Your task to perform on an android device: Open CNN.com Image 0: 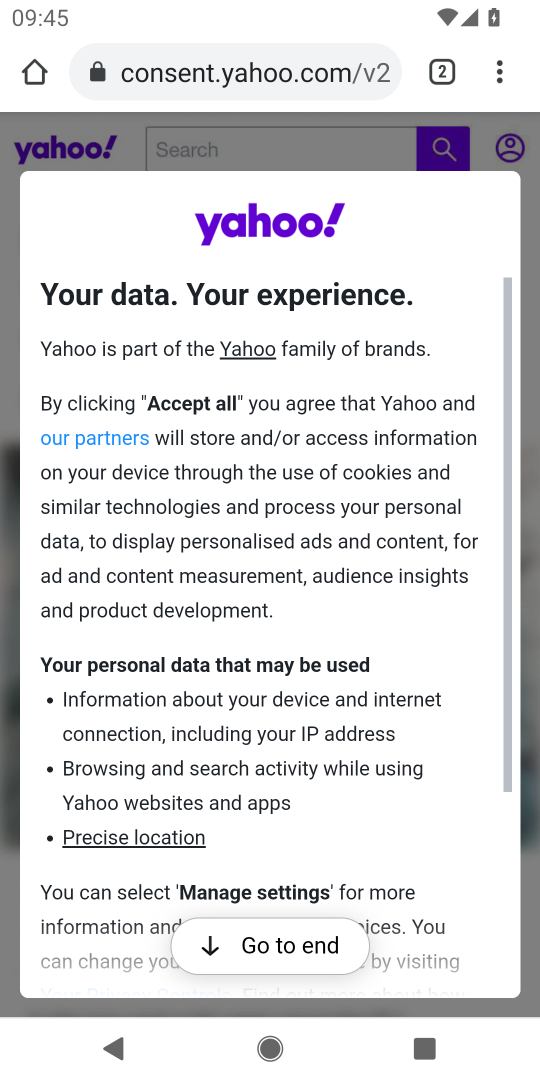
Step 0: click (304, 82)
Your task to perform on an android device: Open CNN.com Image 1: 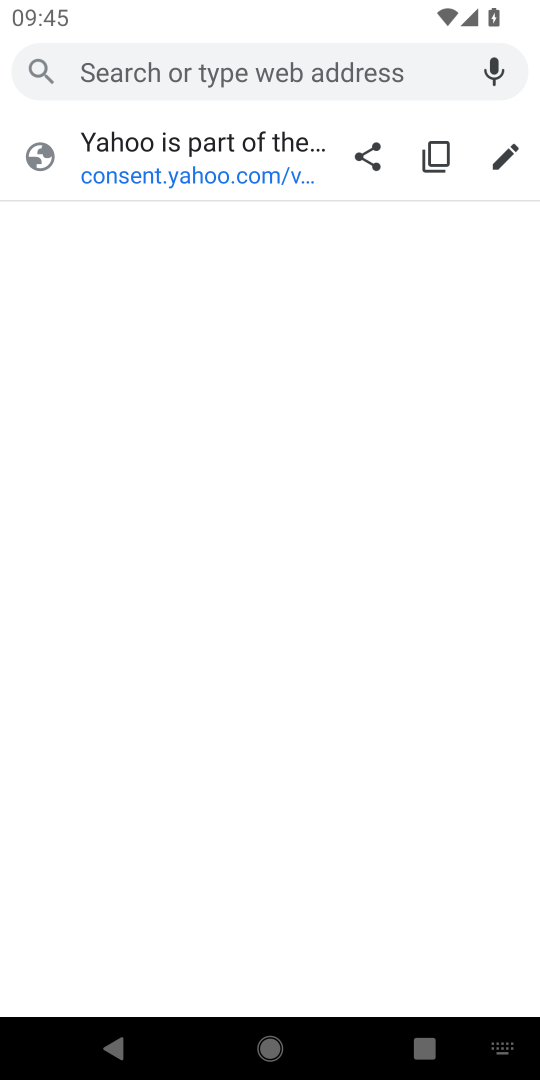
Step 1: type "cnn.com"
Your task to perform on an android device: Open CNN.com Image 2: 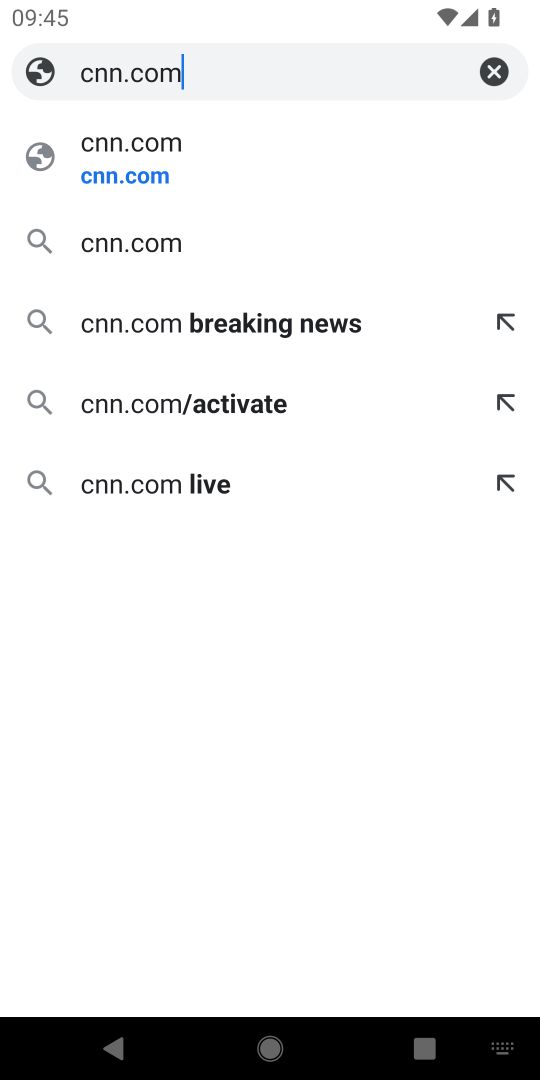
Step 2: click (88, 141)
Your task to perform on an android device: Open CNN.com Image 3: 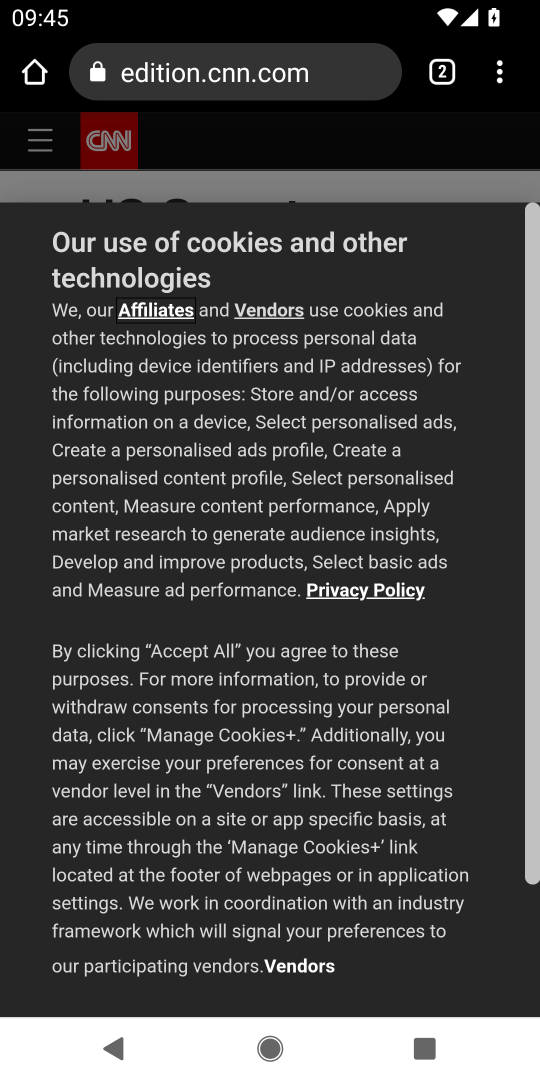
Step 3: task complete